Your task to perform on an android device: Go to ESPN.com Image 0: 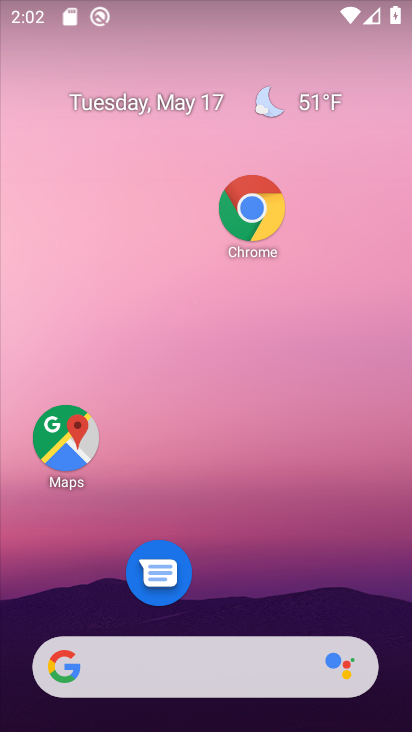
Step 0: drag from (180, 627) to (223, 187)
Your task to perform on an android device: Go to ESPN.com Image 1: 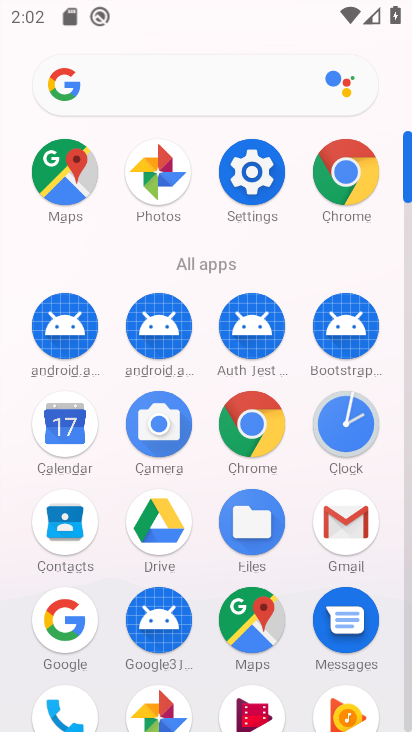
Step 1: click (253, 423)
Your task to perform on an android device: Go to ESPN.com Image 2: 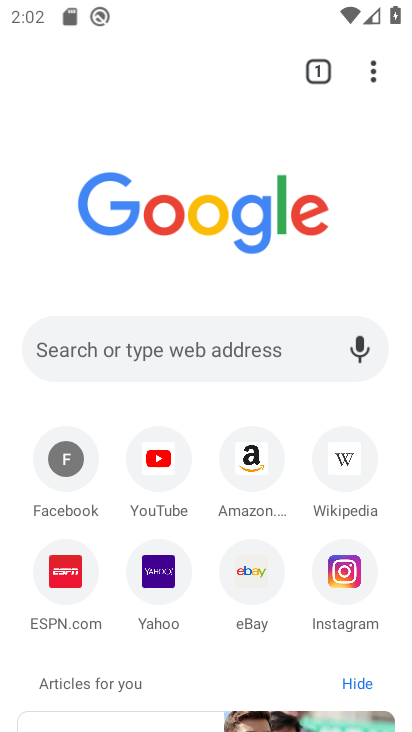
Step 2: click (73, 589)
Your task to perform on an android device: Go to ESPN.com Image 3: 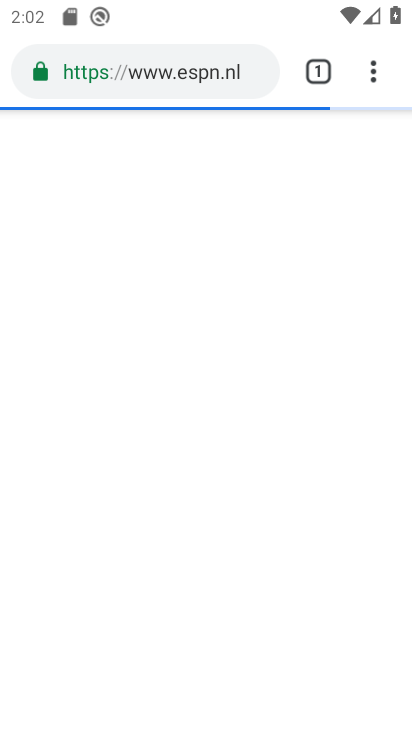
Step 3: task complete